Your task to perform on an android device: Show me recent news Image 0: 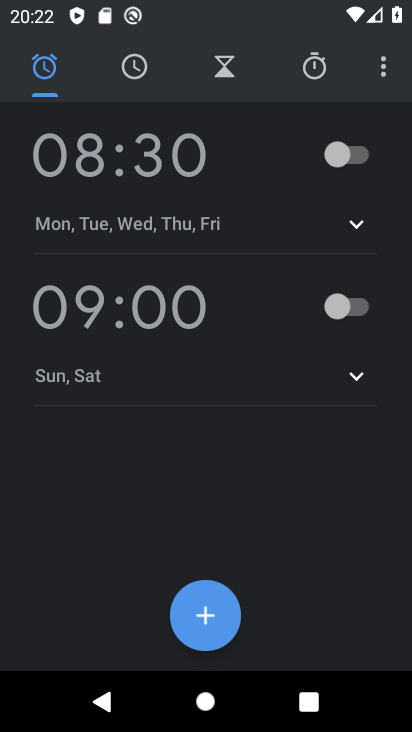
Step 0: press home button
Your task to perform on an android device: Show me recent news Image 1: 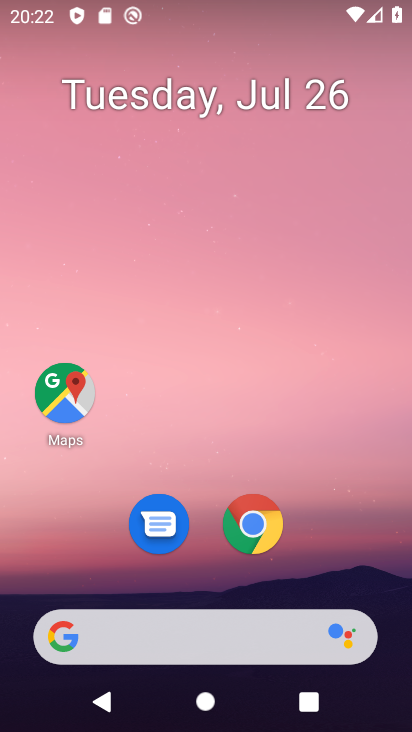
Step 1: click (156, 631)
Your task to perform on an android device: Show me recent news Image 2: 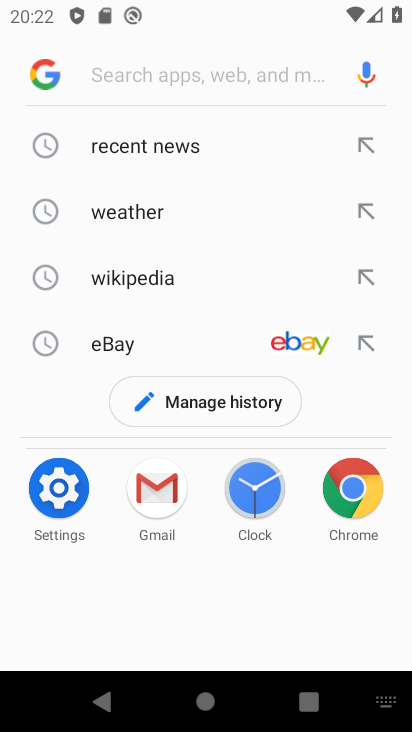
Step 2: click (153, 138)
Your task to perform on an android device: Show me recent news Image 3: 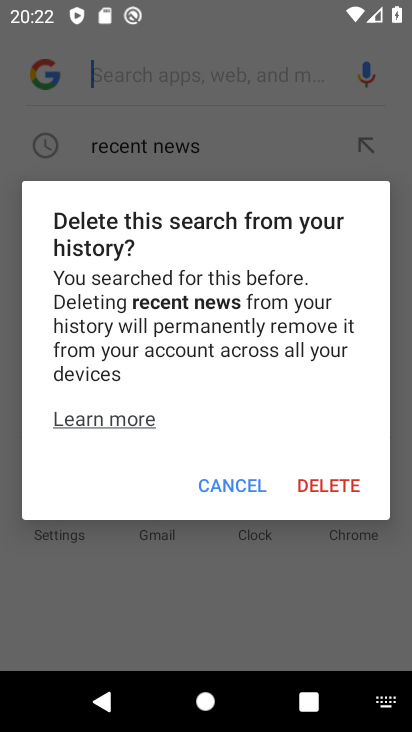
Step 3: click (241, 486)
Your task to perform on an android device: Show me recent news Image 4: 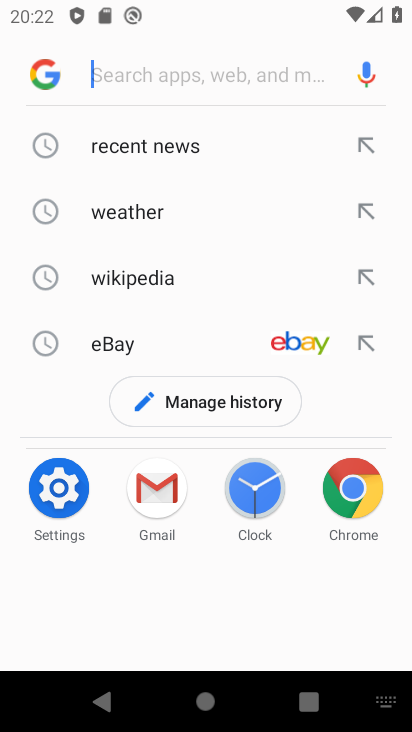
Step 4: click (150, 148)
Your task to perform on an android device: Show me recent news Image 5: 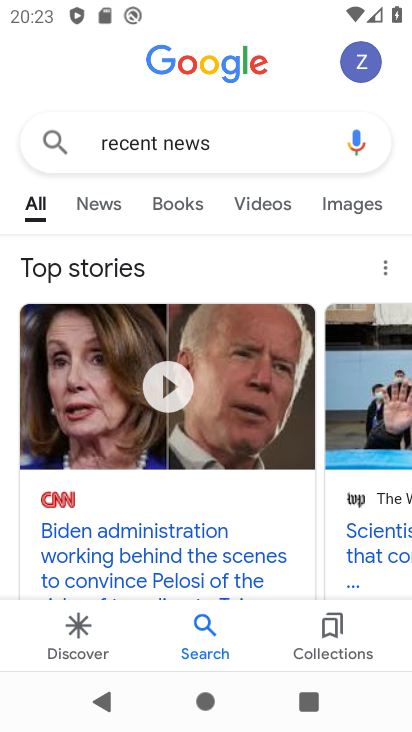
Step 5: click (106, 200)
Your task to perform on an android device: Show me recent news Image 6: 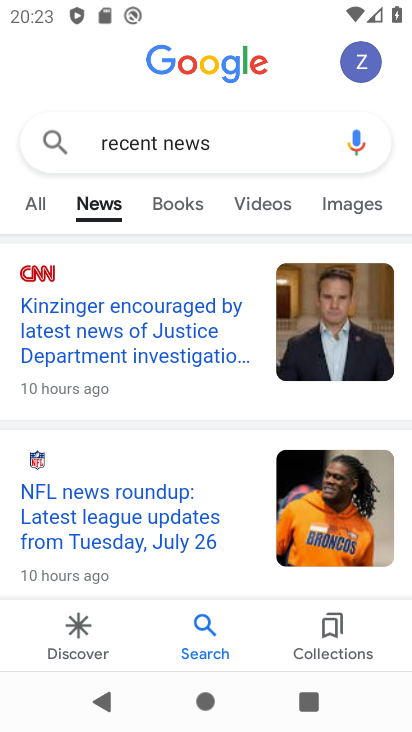
Step 6: task complete